Your task to perform on an android device: Open ESPN.com Image 0: 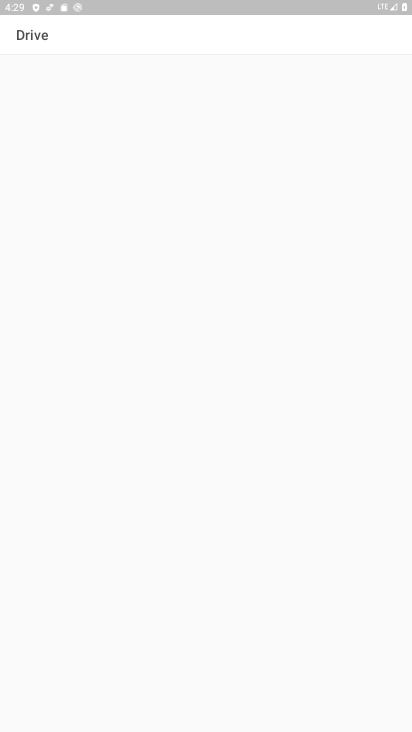
Step 0: press home button
Your task to perform on an android device: Open ESPN.com Image 1: 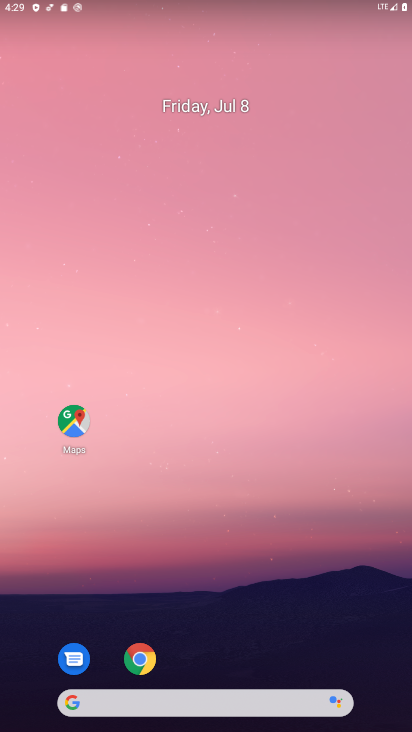
Step 1: click (156, 667)
Your task to perform on an android device: Open ESPN.com Image 2: 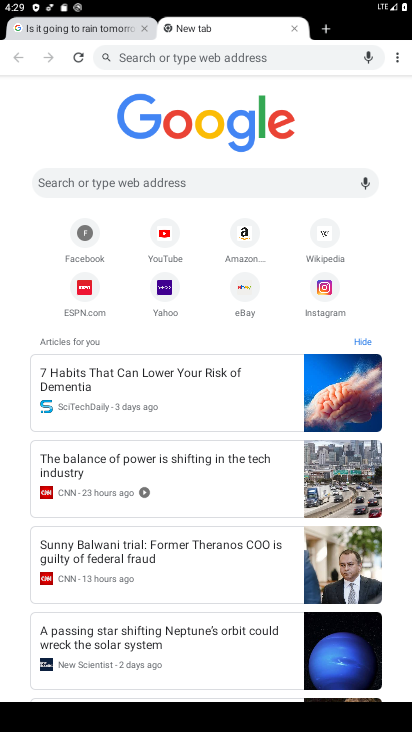
Step 2: click (98, 300)
Your task to perform on an android device: Open ESPN.com Image 3: 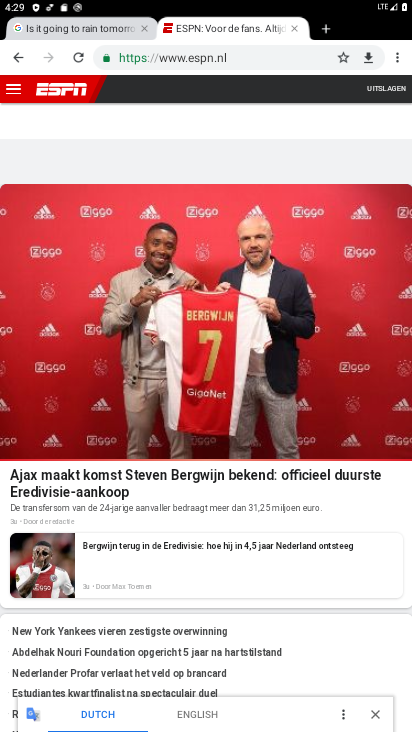
Step 3: task complete